Your task to perform on an android device: toggle improve location accuracy Image 0: 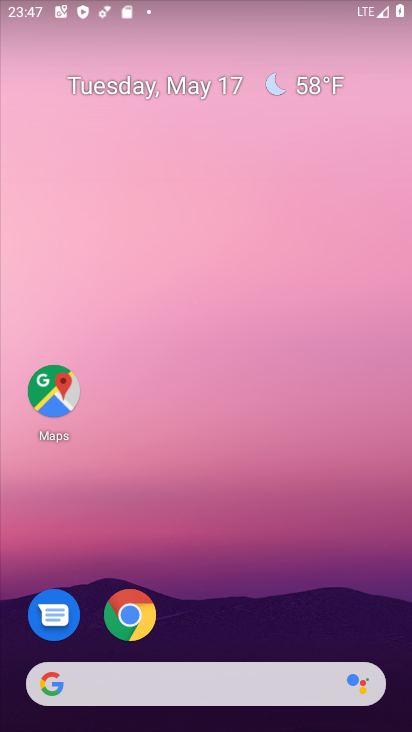
Step 0: drag from (221, 626) to (212, 216)
Your task to perform on an android device: toggle improve location accuracy Image 1: 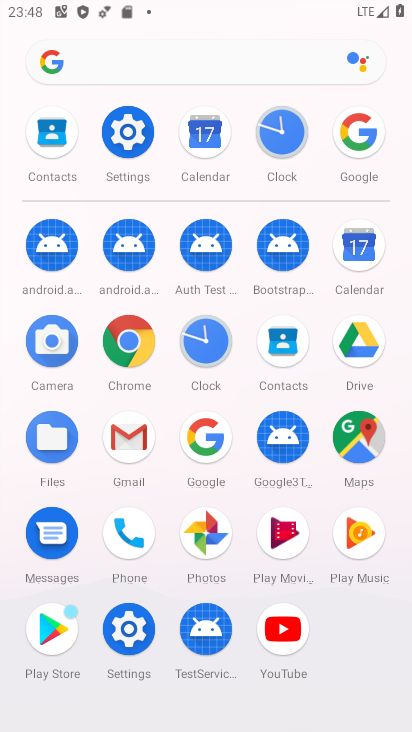
Step 1: click (140, 124)
Your task to perform on an android device: toggle improve location accuracy Image 2: 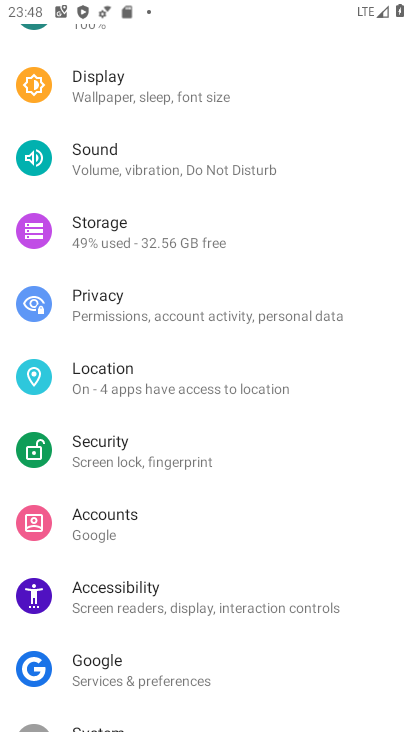
Step 2: click (127, 396)
Your task to perform on an android device: toggle improve location accuracy Image 3: 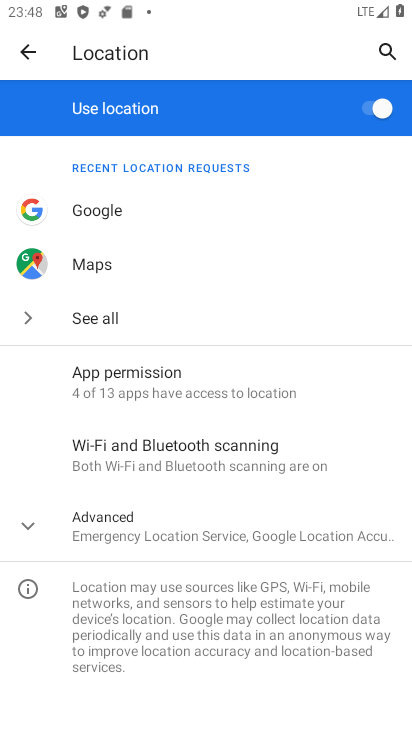
Step 3: click (174, 520)
Your task to perform on an android device: toggle improve location accuracy Image 4: 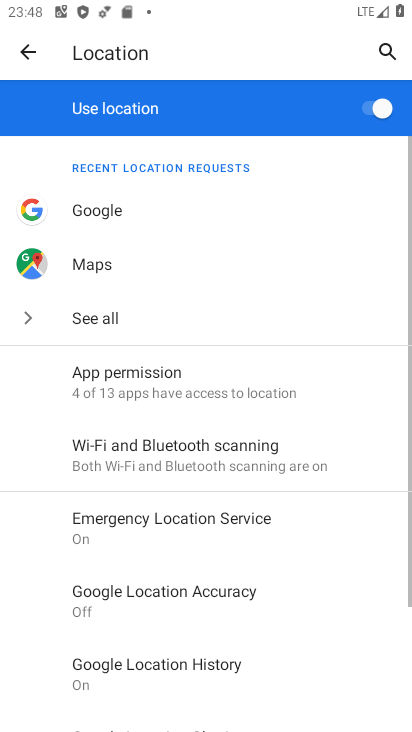
Step 4: drag from (180, 555) to (185, 388)
Your task to perform on an android device: toggle improve location accuracy Image 5: 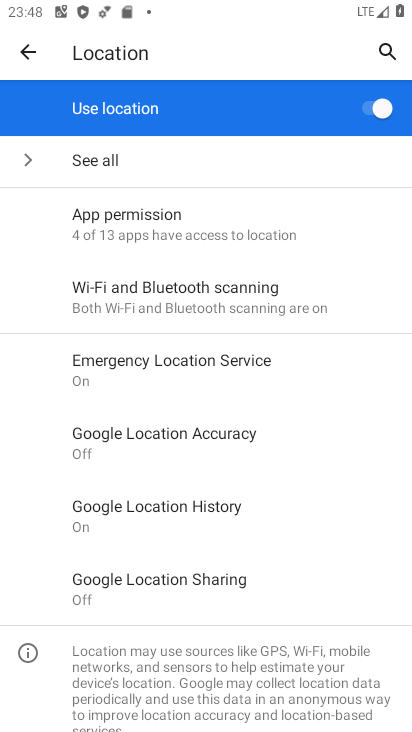
Step 5: click (188, 446)
Your task to perform on an android device: toggle improve location accuracy Image 6: 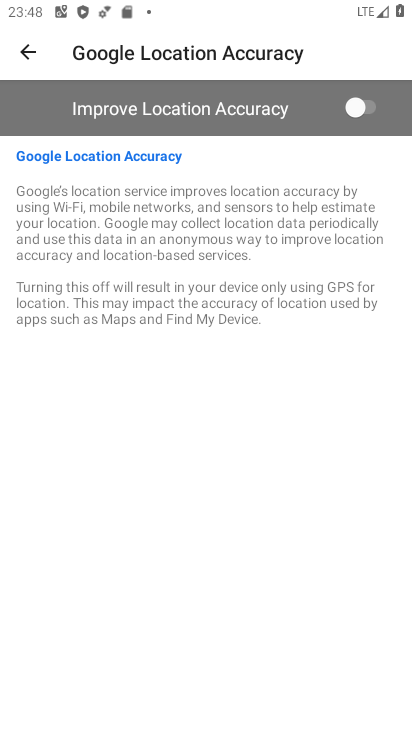
Step 6: click (372, 111)
Your task to perform on an android device: toggle improve location accuracy Image 7: 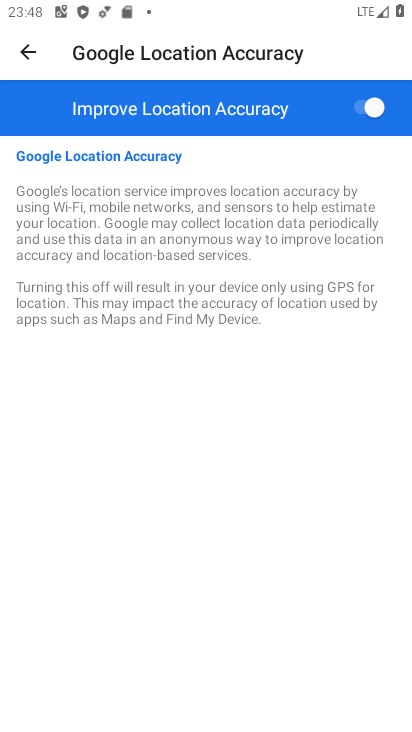
Step 7: task complete